Your task to perform on an android device: add a contact in the contacts app Image 0: 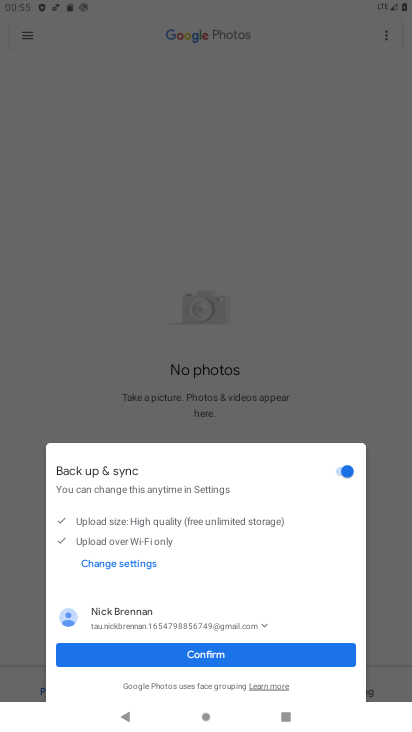
Step 0: press home button
Your task to perform on an android device: add a contact in the contacts app Image 1: 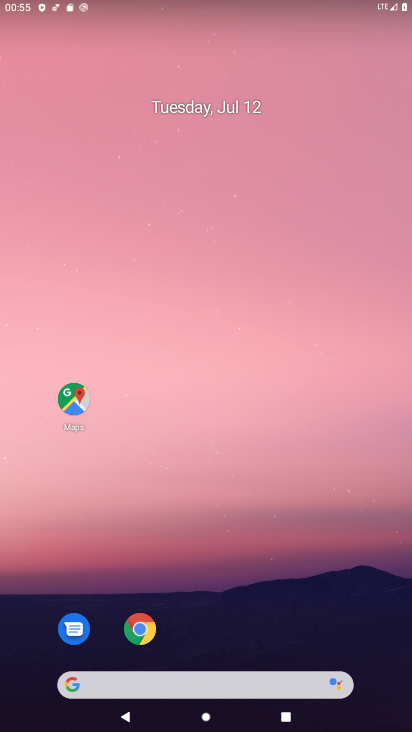
Step 1: drag from (96, 583) to (318, 219)
Your task to perform on an android device: add a contact in the contacts app Image 2: 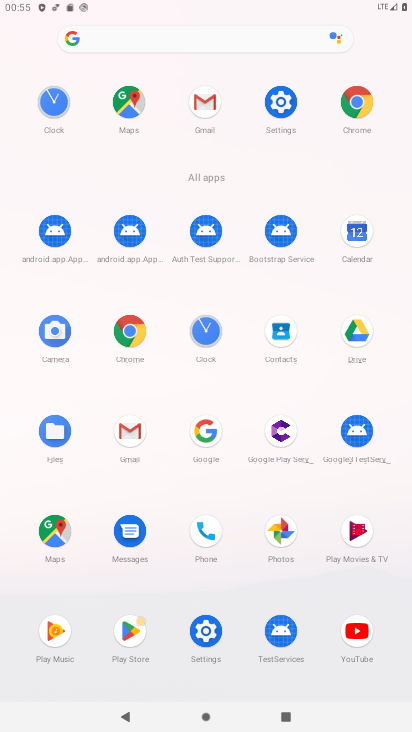
Step 2: click (274, 332)
Your task to perform on an android device: add a contact in the contacts app Image 3: 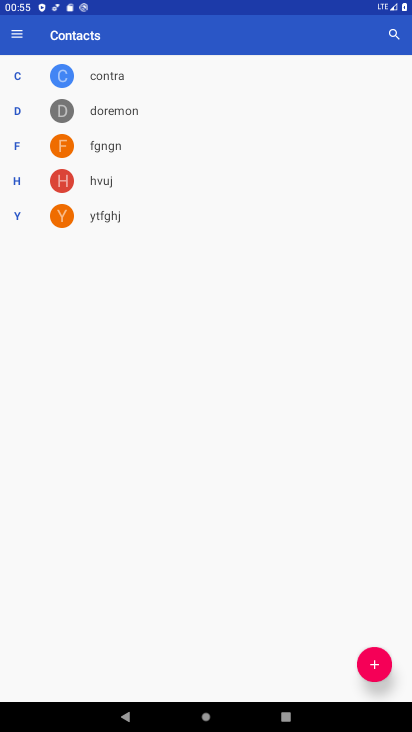
Step 3: click (377, 669)
Your task to perform on an android device: add a contact in the contacts app Image 4: 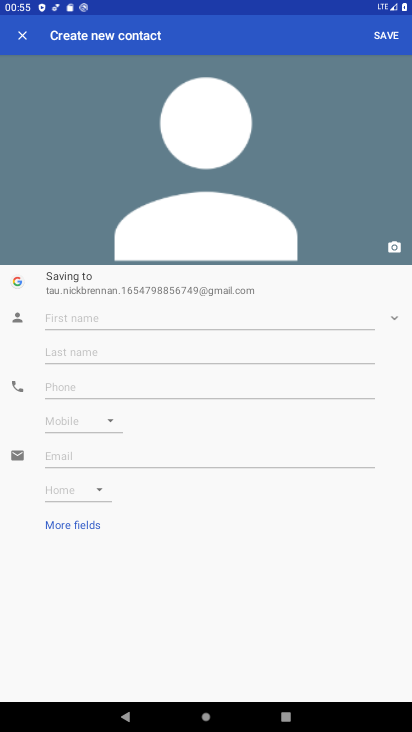
Step 4: click (82, 313)
Your task to perform on an android device: add a contact in the contacts app Image 5: 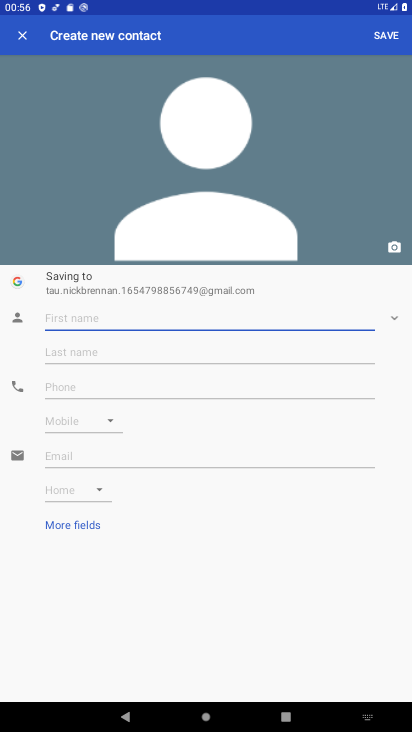
Step 5: type "chanchal"
Your task to perform on an android device: add a contact in the contacts app Image 6: 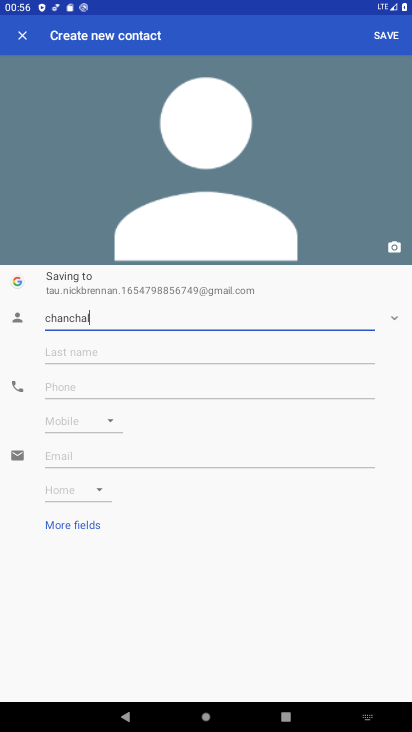
Step 6: type ""
Your task to perform on an android device: add a contact in the contacts app Image 7: 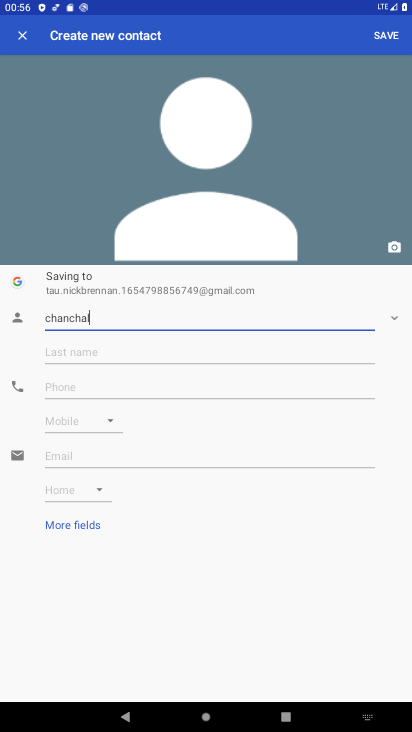
Step 7: click (376, 33)
Your task to perform on an android device: add a contact in the contacts app Image 8: 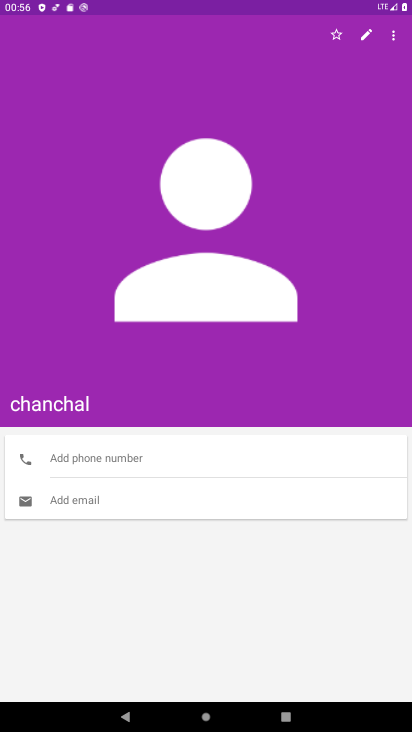
Step 8: task complete